Your task to perform on an android device: change alarm snooze length Image 0: 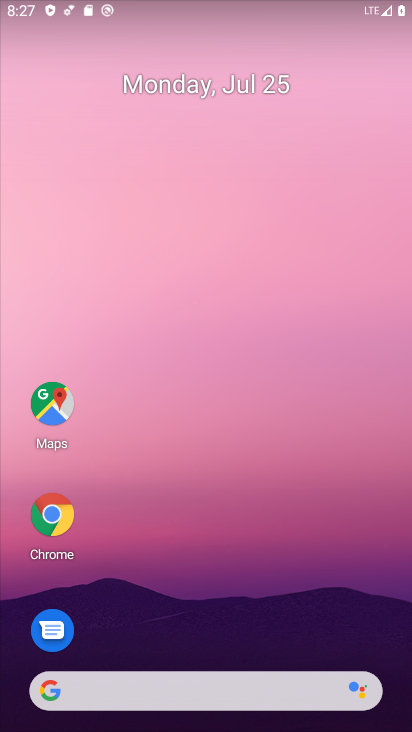
Step 0: drag from (37, 706) to (149, 111)
Your task to perform on an android device: change alarm snooze length Image 1: 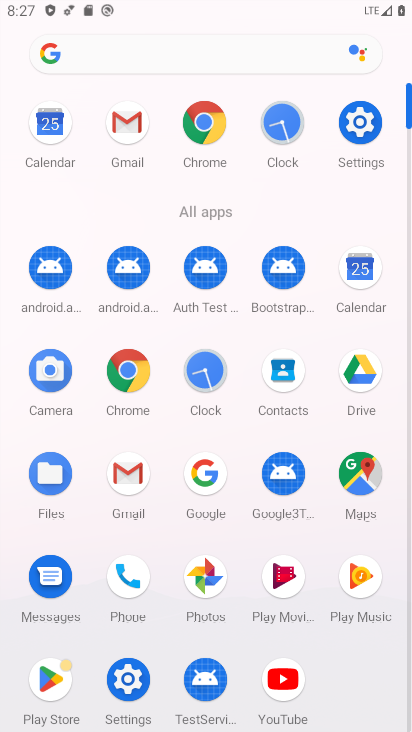
Step 1: click (207, 378)
Your task to perform on an android device: change alarm snooze length Image 2: 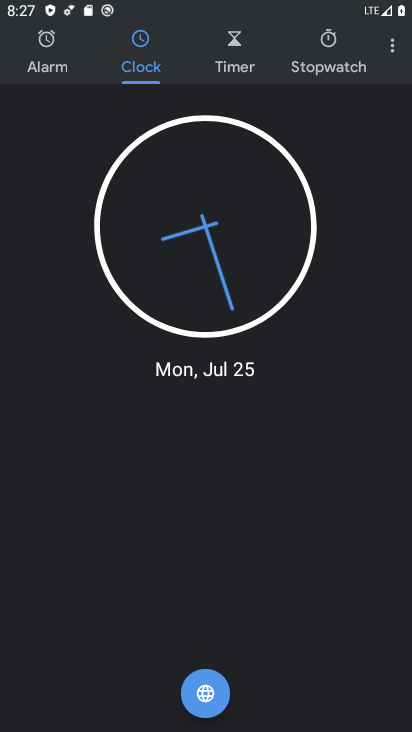
Step 2: click (58, 62)
Your task to perform on an android device: change alarm snooze length Image 3: 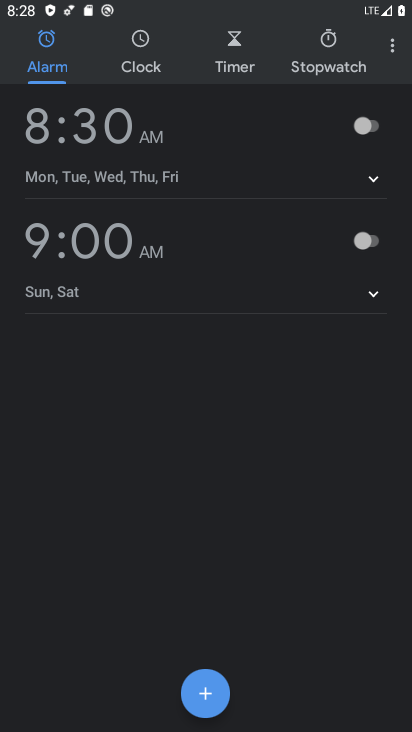
Step 3: click (384, 50)
Your task to perform on an android device: change alarm snooze length Image 4: 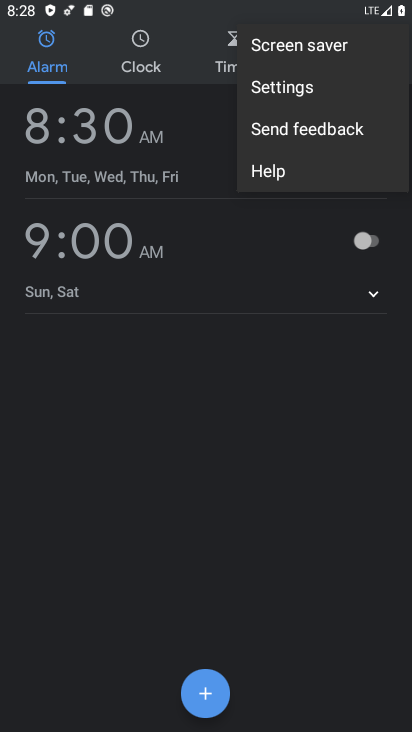
Step 4: click (293, 84)
Your task to perform on an android device: change alarm snooze length Image 5: 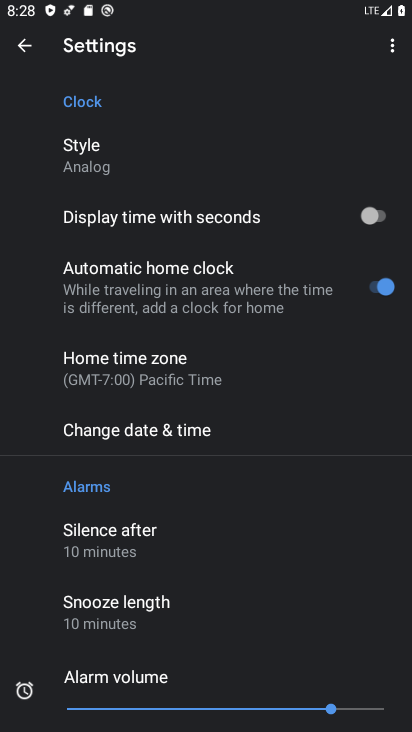
Step 5: click (104, 601)
Your task to perform on an android device: change alarm snooze length Image 6: 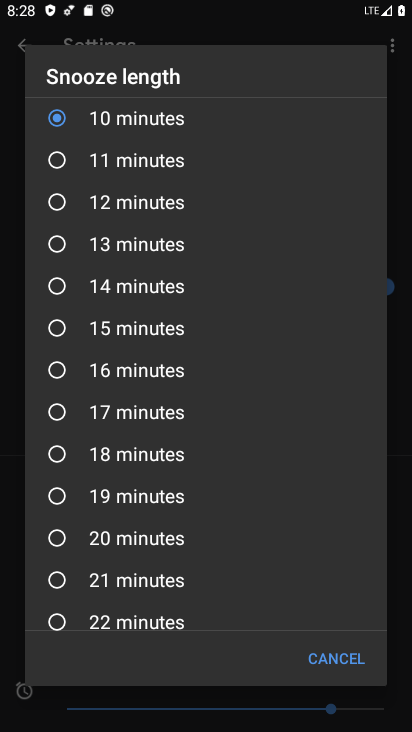
Step 6: click (47, 329)
Your task to perform on an android device: change alarm snooze length Image 7: 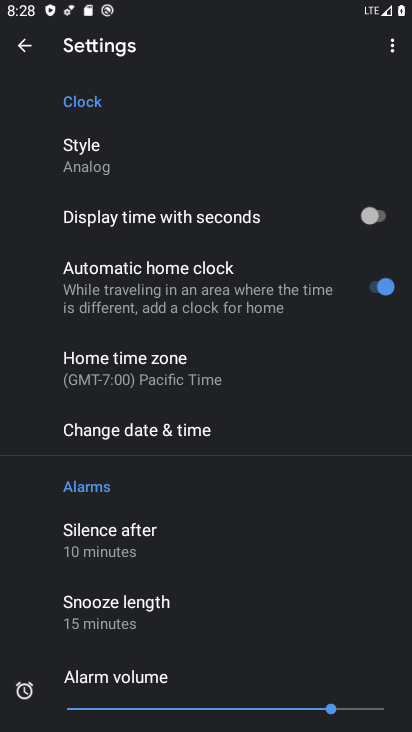
Step 7: task complete